Your task to perform on an android device: Go to eBay Image 0: 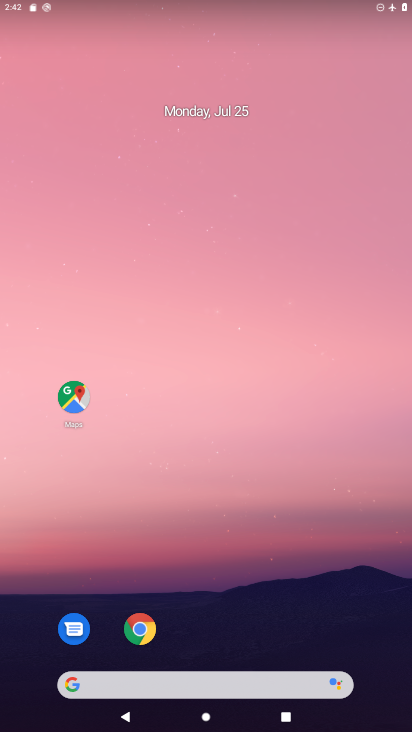
Step 0: drag from (320, 551) to (129, 16)
Your task to perform on an android device: Go to eBay Image 1: 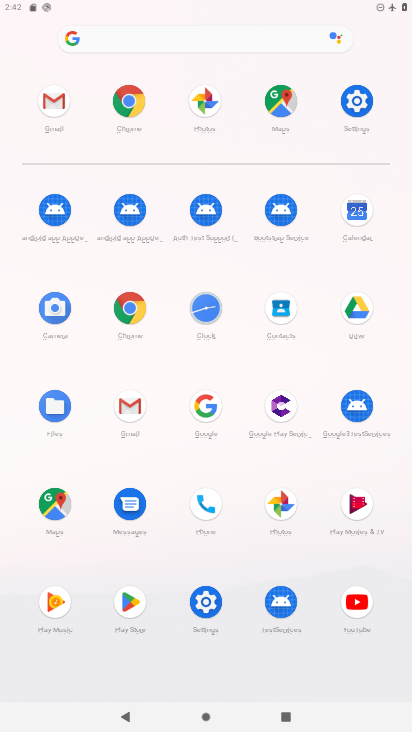
Step 1: click (135, 100)
Your task to perform on an android device: Go to eBay Image 2: 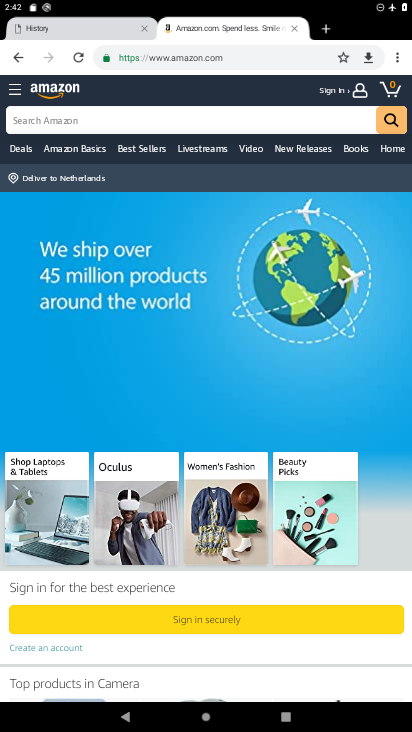
Step 2: click (17, 50)
Your task to perform on an android device: Go to eBay Image 3: 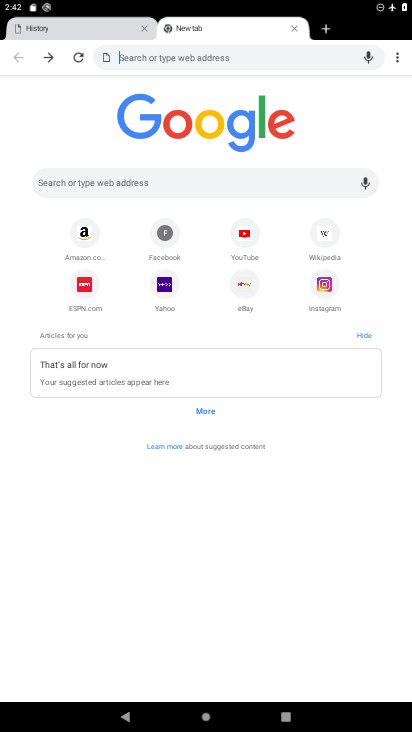
Step 3: click (249, 287)
Your task to perform on an android device: Go to eBay Image 4: 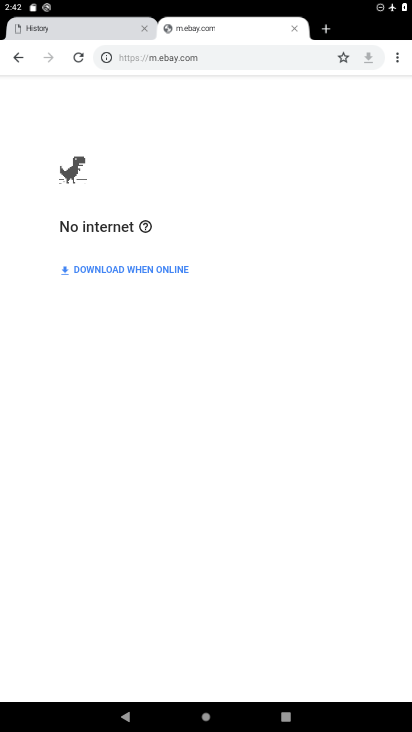
Step 4: task complete